Your task to perform on an android device: toggle show notifications on the lock screen Image 0: 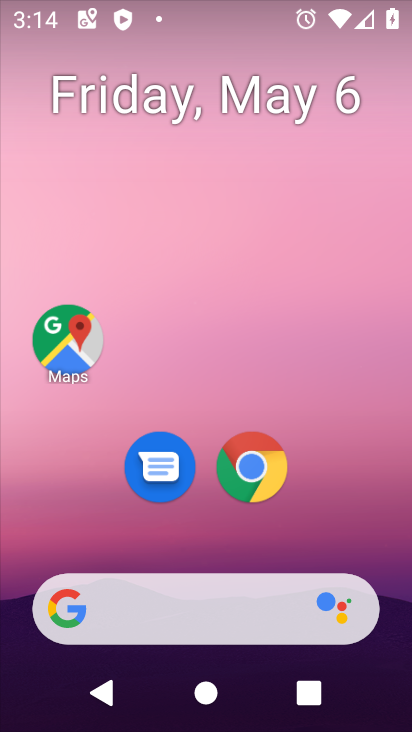
Step 0: drag from (223, 466) to (305, 56)
Your task to perform on an android device: toggle show notifications on the lock screen Image 1: 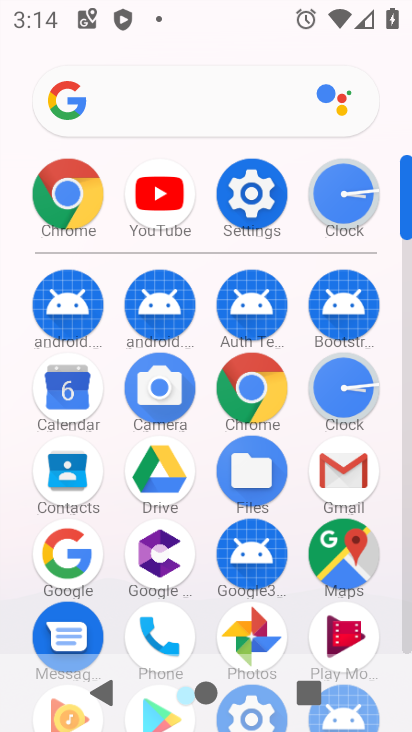
Step 1: click (254, 190)
Your task to perform on an android device: toggle show notifications on the lock screen Image 2: 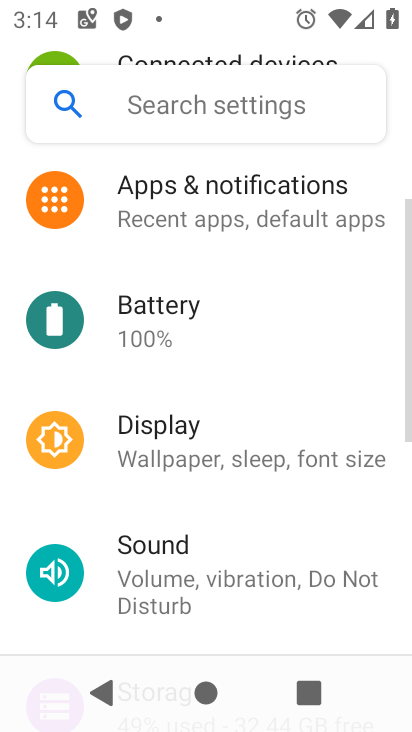
Step 2: drag from (186, 555) to (186, 692)
Your task to perform on an android device: toggle show notifications on the lock screen Image 3: 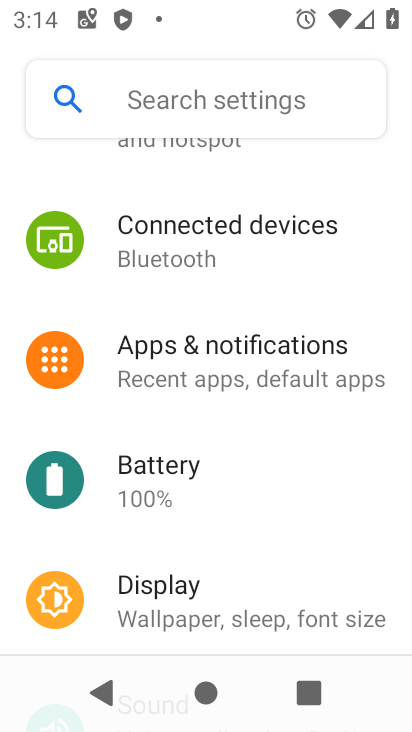
Step 3: click (191, 375)
Your task to perform on an android device: toggle show notifications on the lock screen Image 4: 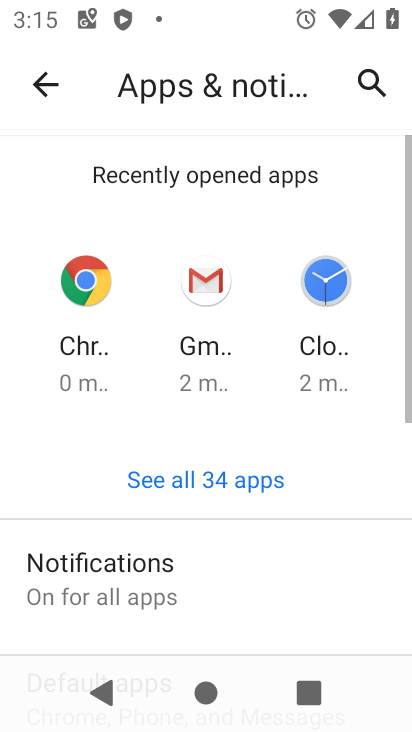
Step 4: drag from (165, 591) to (301, 137)
Your task to perform on an android device: toggle show notifications on the lock screen Image 5: 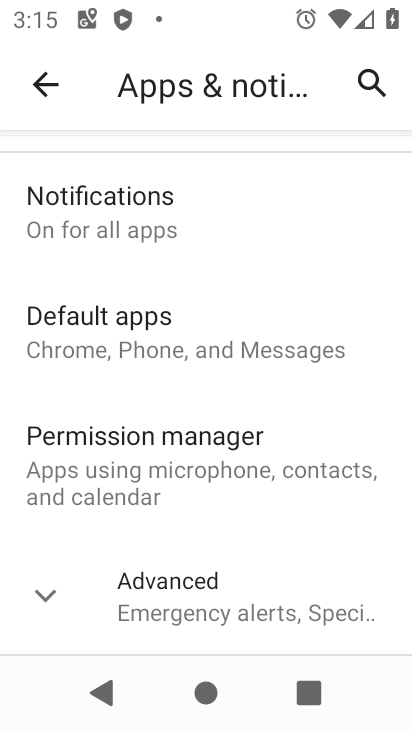
Step 5: click (160, 222)
Your task to perform on an android device: toggle show notifications on the lock screen Image 6: 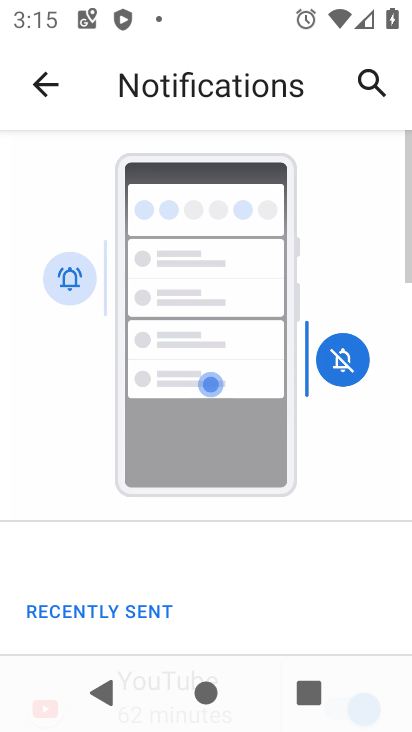
Step 6: drag from (138, 610) to (286, 59)
Your task to perform on an android device: toggle show notifications on the lock screen Image 7: 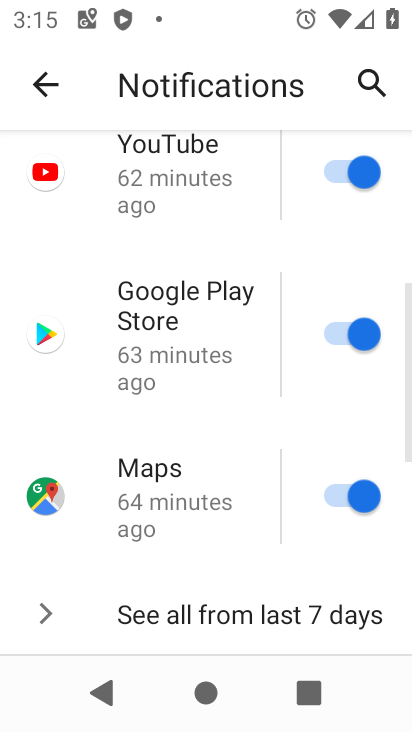
Step 7: drag from (169, 543) to (262, 58)
Your task to perform on an android device: toggle show notifications on the lock screen Image 8: 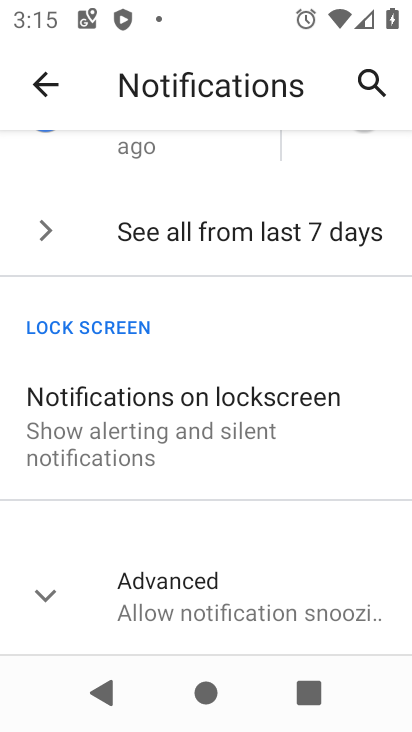
Step 8: click (186, 610)
Your task to perform on an android device: toggle show notifications on the lock screen Image 9: 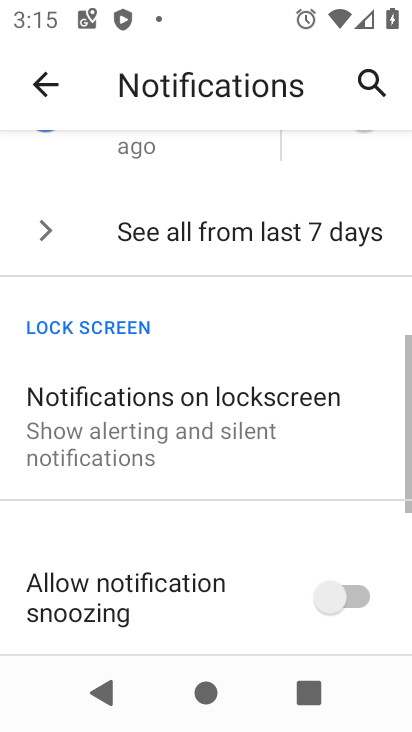
Step 9: drag from (195, 582) to (246, 595)
Your task to perform on an android device: toggle show notifications on the lock screen Image 10: 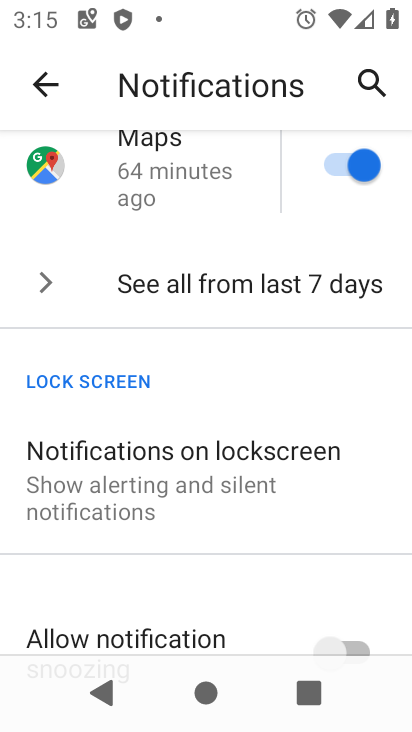
Step 10: click (171, 485)
Your task to perform on an android device: toggle show notifications on the lock screen Image 11: 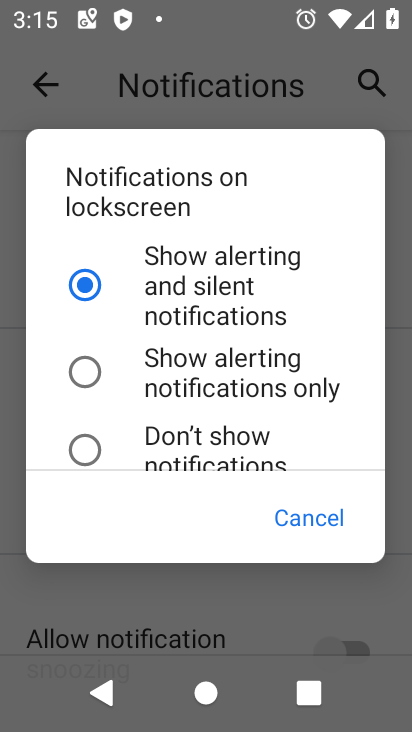
Step 11: click (84, 291)
Your task to perform on an android device: toggle show notifications on the lock screen Image 12: 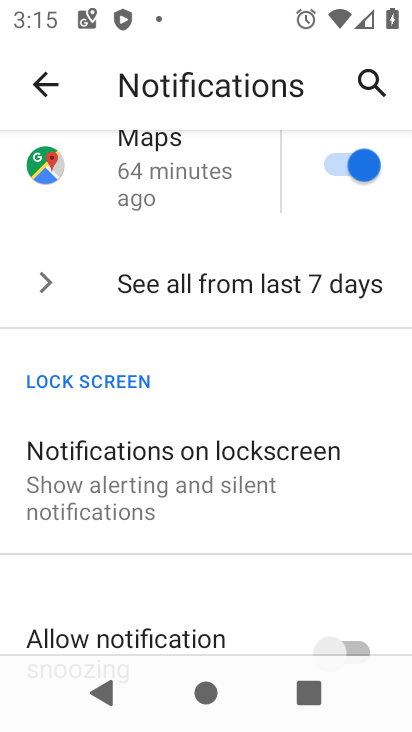
Step 12: task complete